Your task to perform on an android device: toggle airplane mode Image 0: 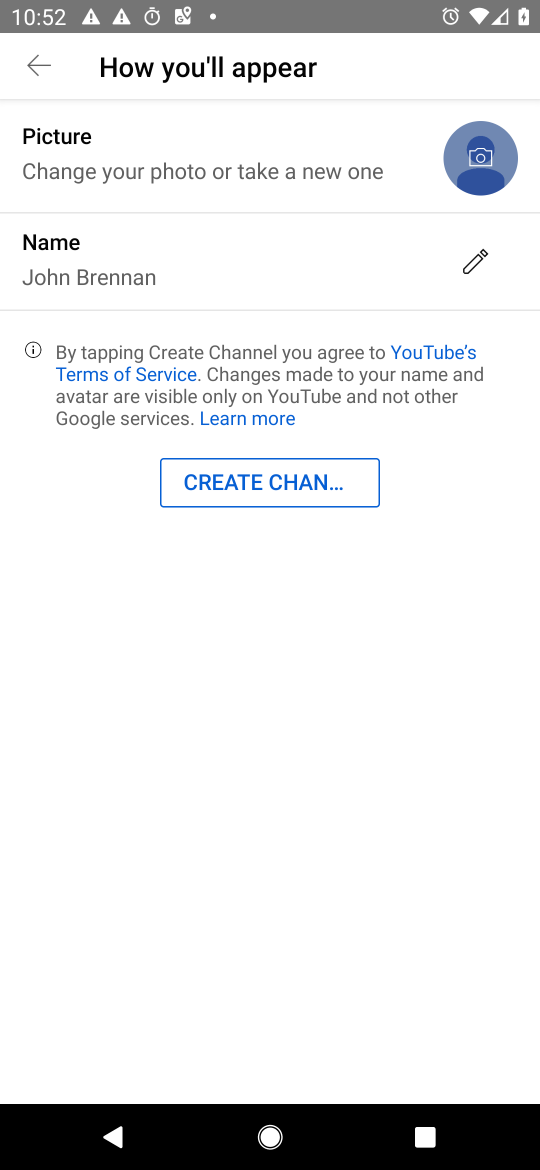
Step 0: click (287, 328)
Your task to perform on an android device: toggle airplane mode Image 1: 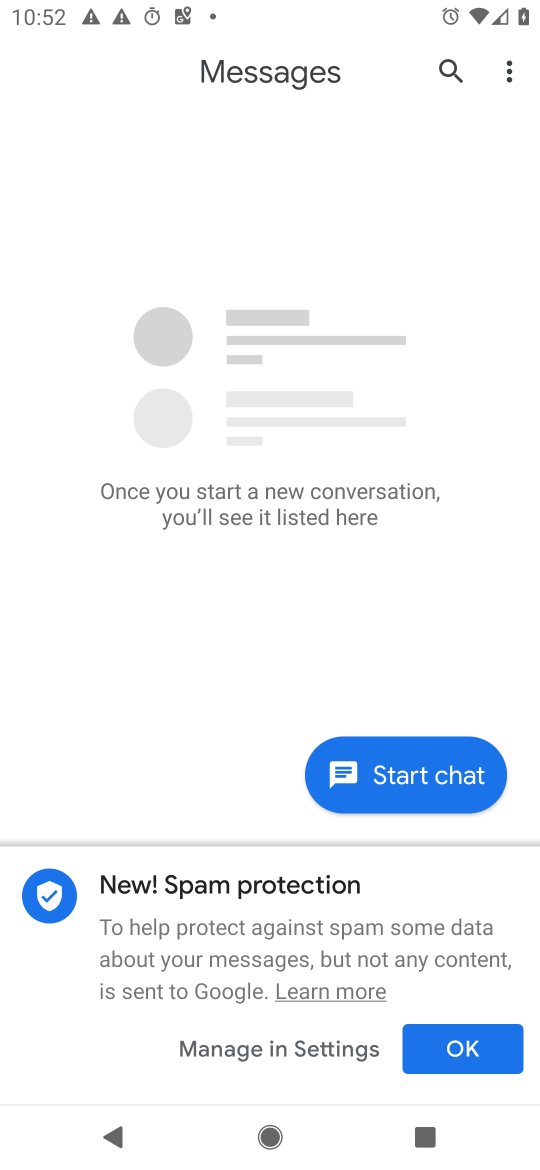
Step 1: drag from (229, 781) to (274, 334)
Your task to perform on an android device: toggle airplane mode Image 2: 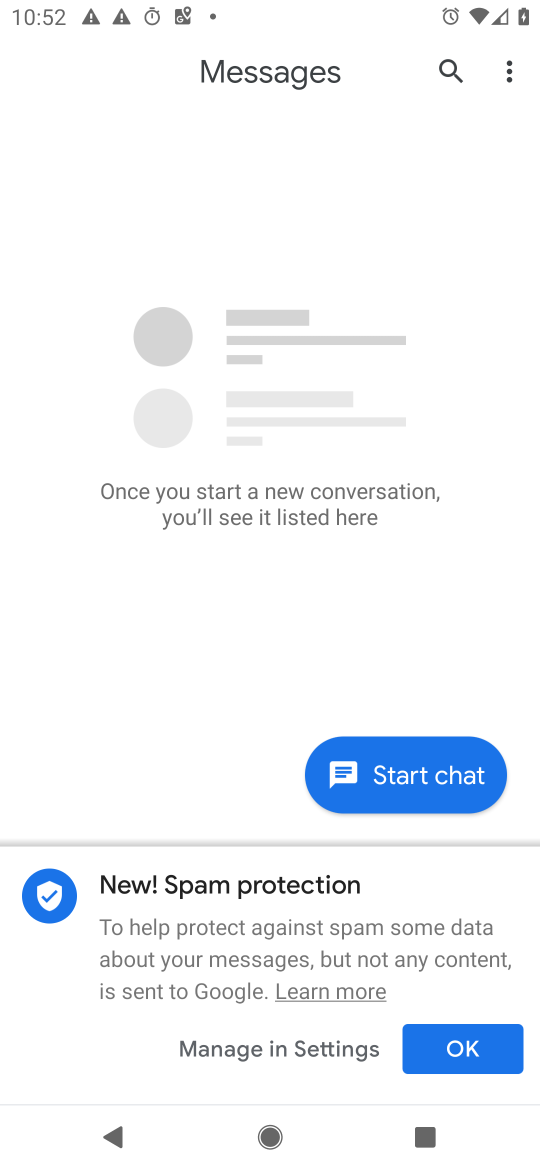
Step 2: press home button
Your task to perform on an android device: toggle airplane mode Image 3: 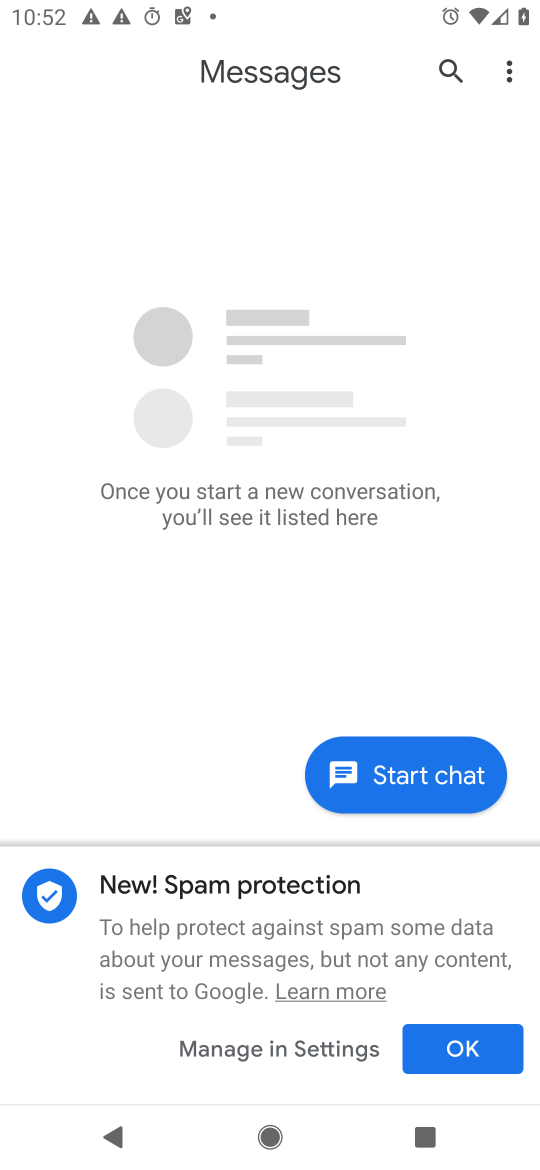
Step 3: drag from (275, 935) to (305, 292)
Your task to perform on an android device: toggle airplane mode Image 4: 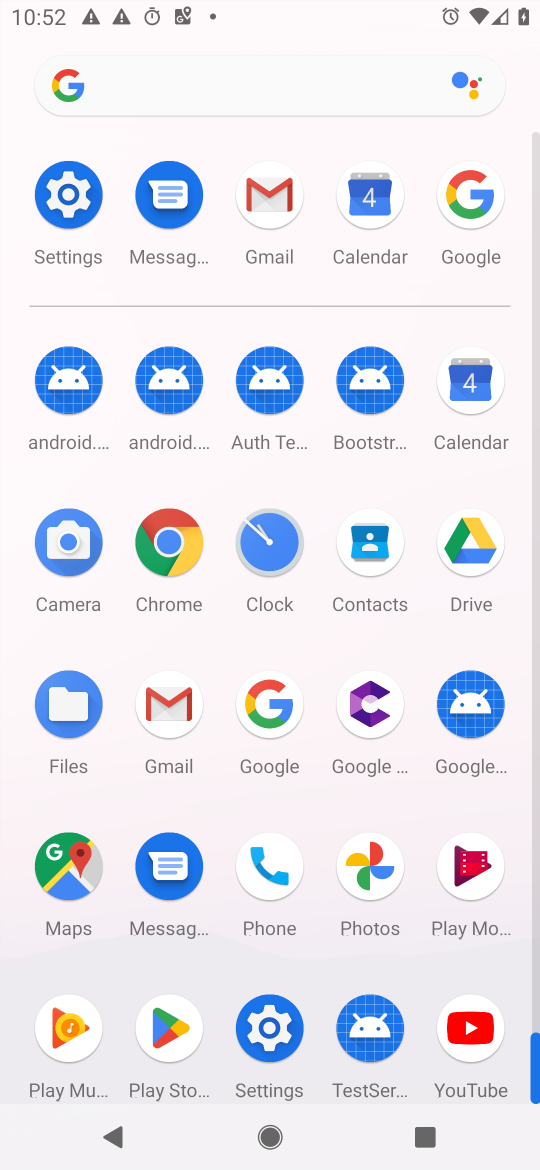
Step 4: click (70, 186)
Your task to perform on an android device: toggle airplane mode Image 5: 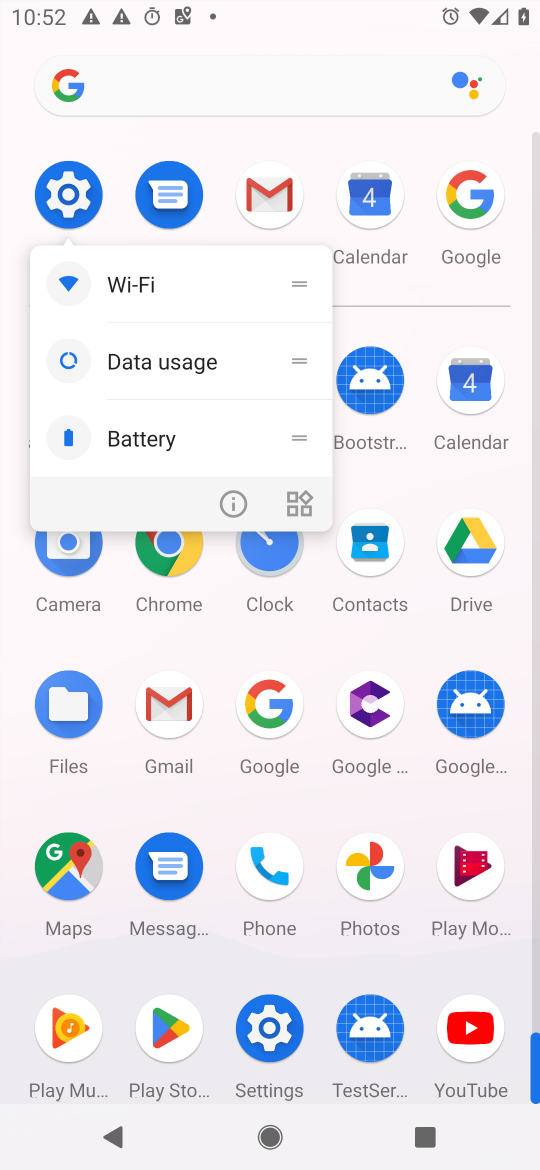
Step 5: click (222, 493)
Your task to perform on an android device: toggle airplane mode Image 6: 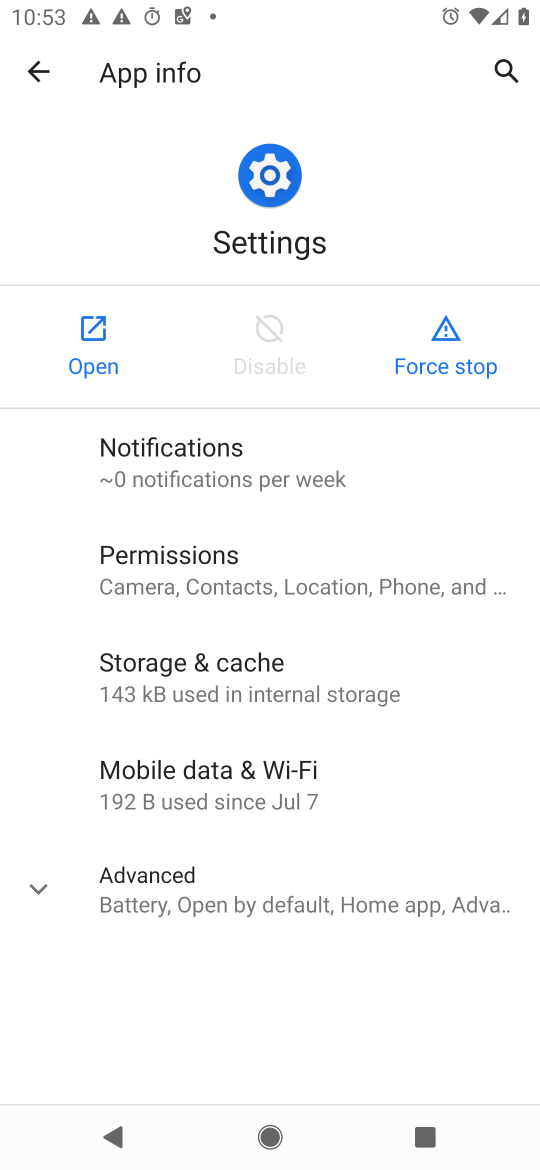
Step 6: click (92, 309)
Your task to perform on an android device: toggle airplane mode Image 7: 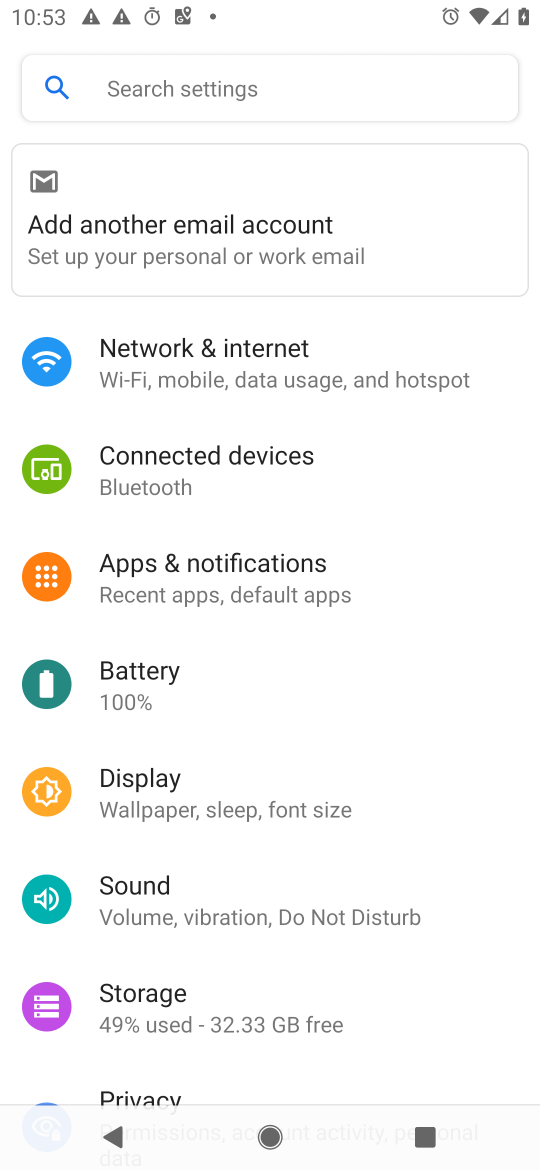
Step 7: click (209, 365)
Your task to perform on an android device: toggle airplane mode Image 8: 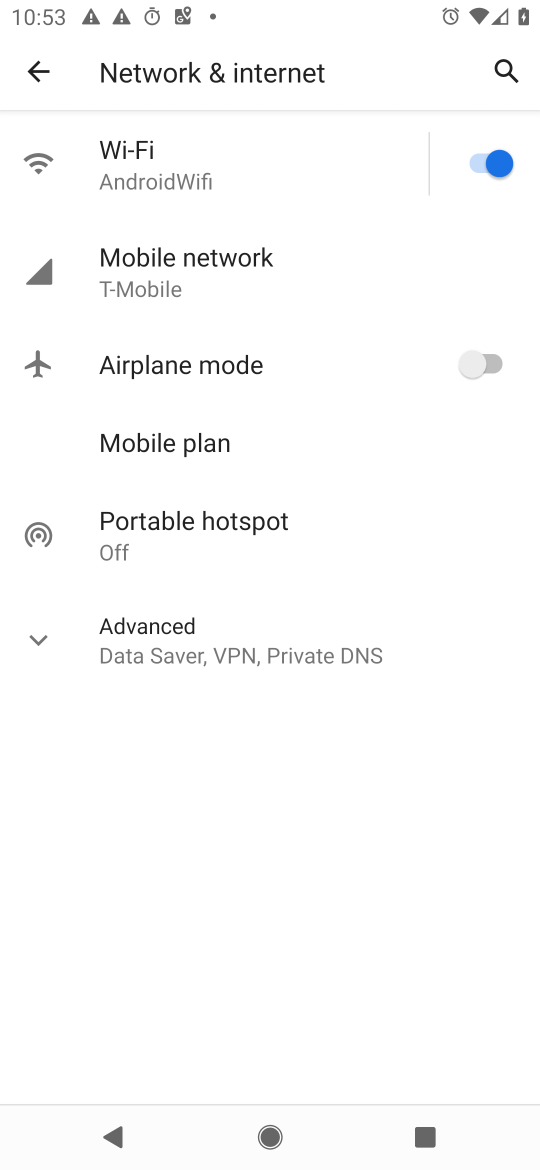
Step 8: click (240, 363)
Your task to perform on an android device: toggle airplane mode Image 9: 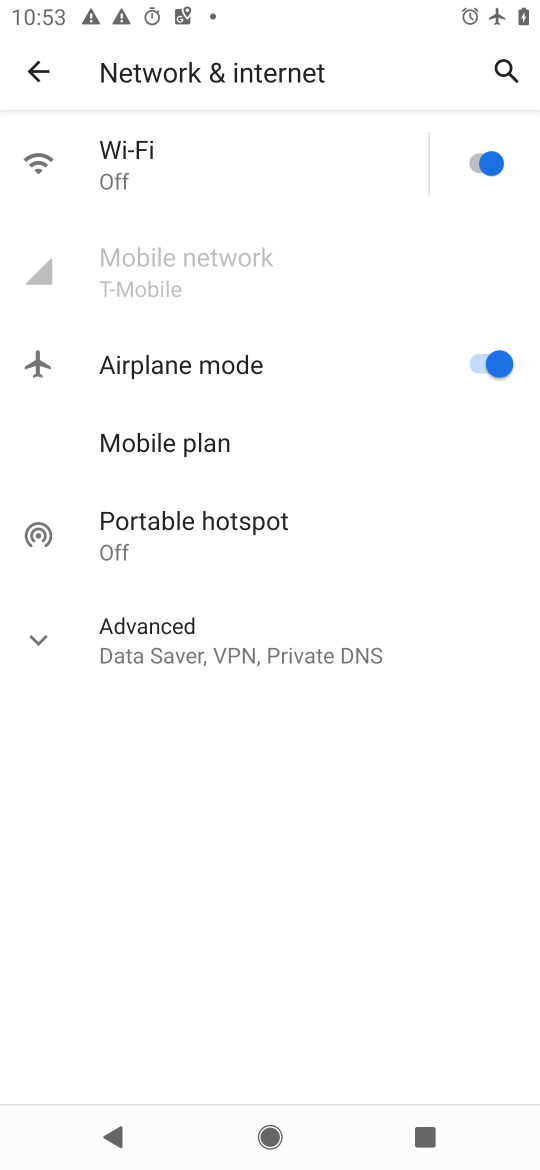
Step 9: task complete